Your task to perform on an android device: toggle pop-ups in chrome Image 0: 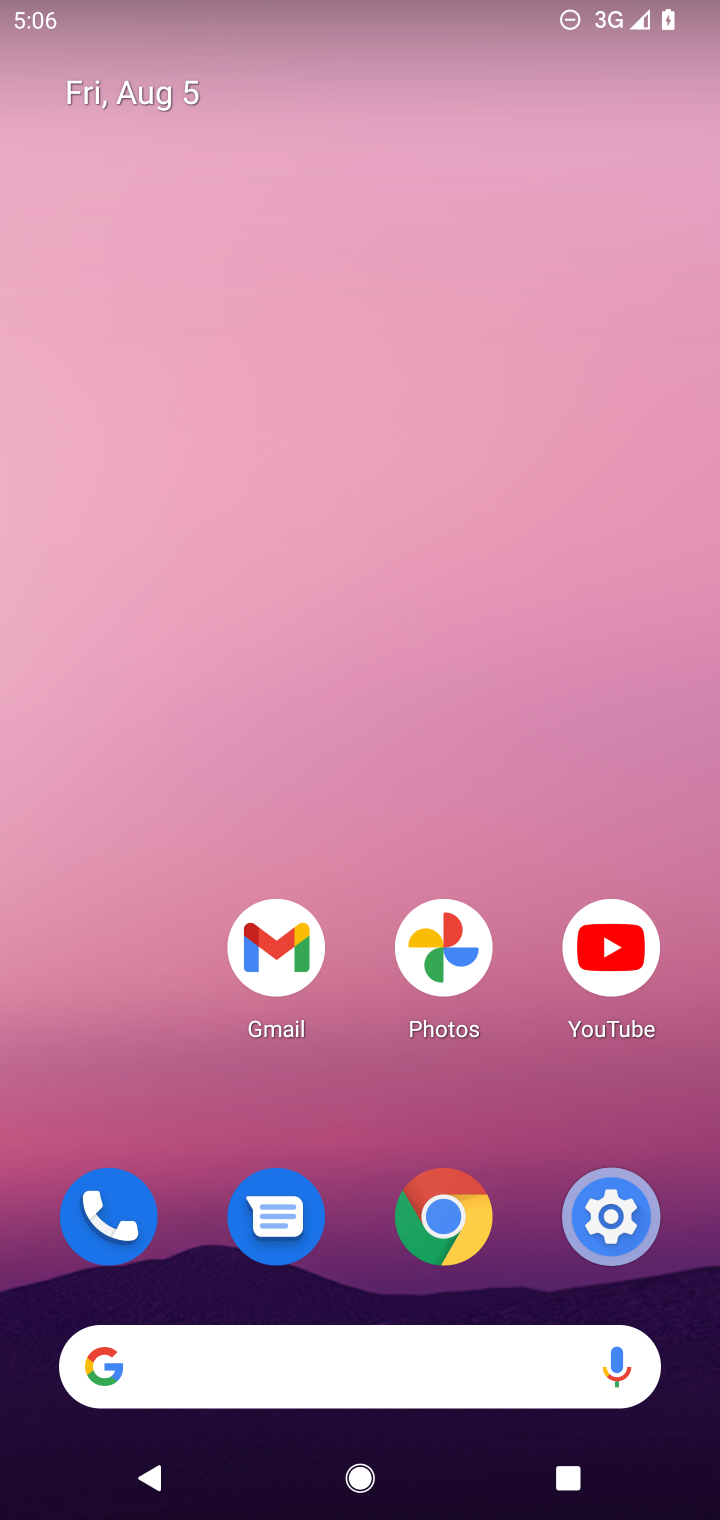
Step 0: click (446, 1208)
Your task to perform on an android device: toggle pop-ups in chrome Image 1: 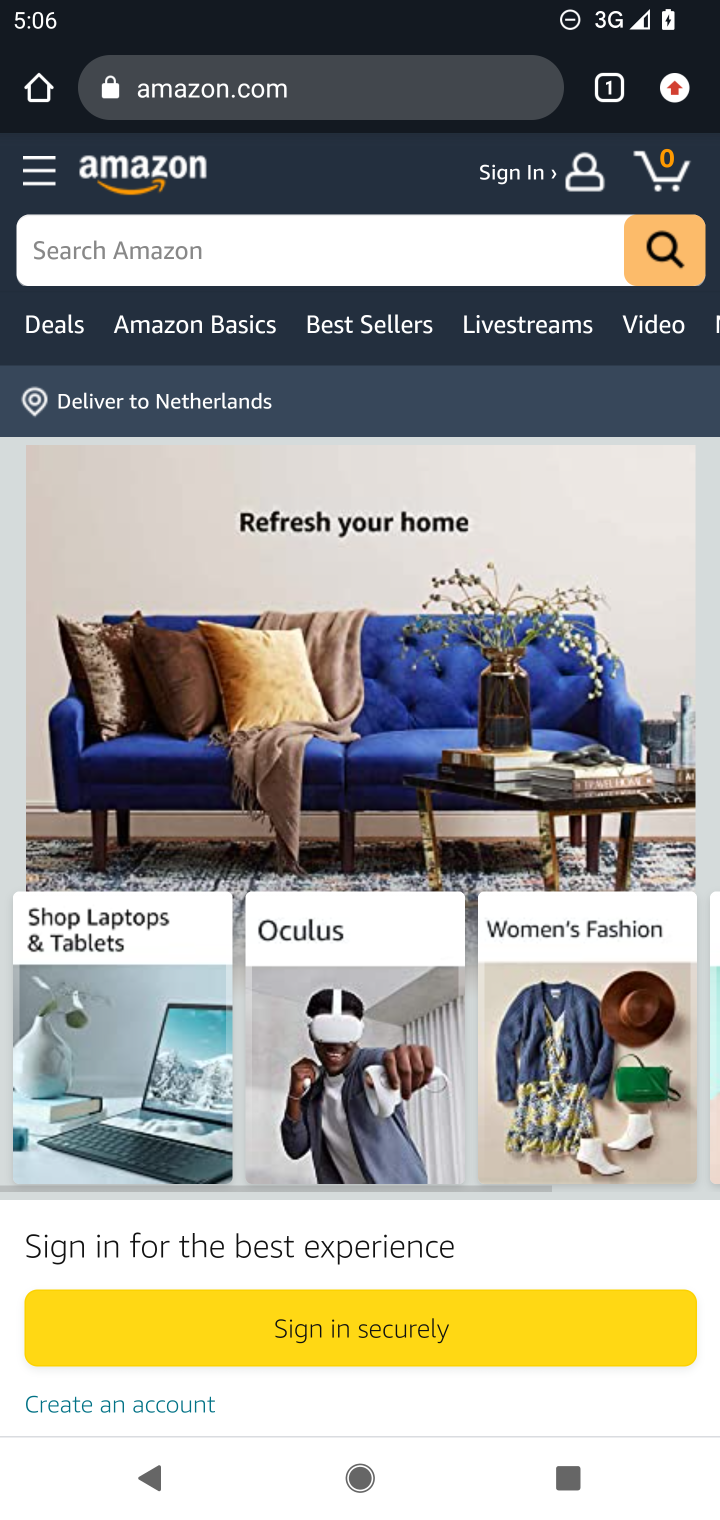
Step 1: click (683, 84)
Your task to perform on an android device: toggle pop-ups in chrome Image 2: 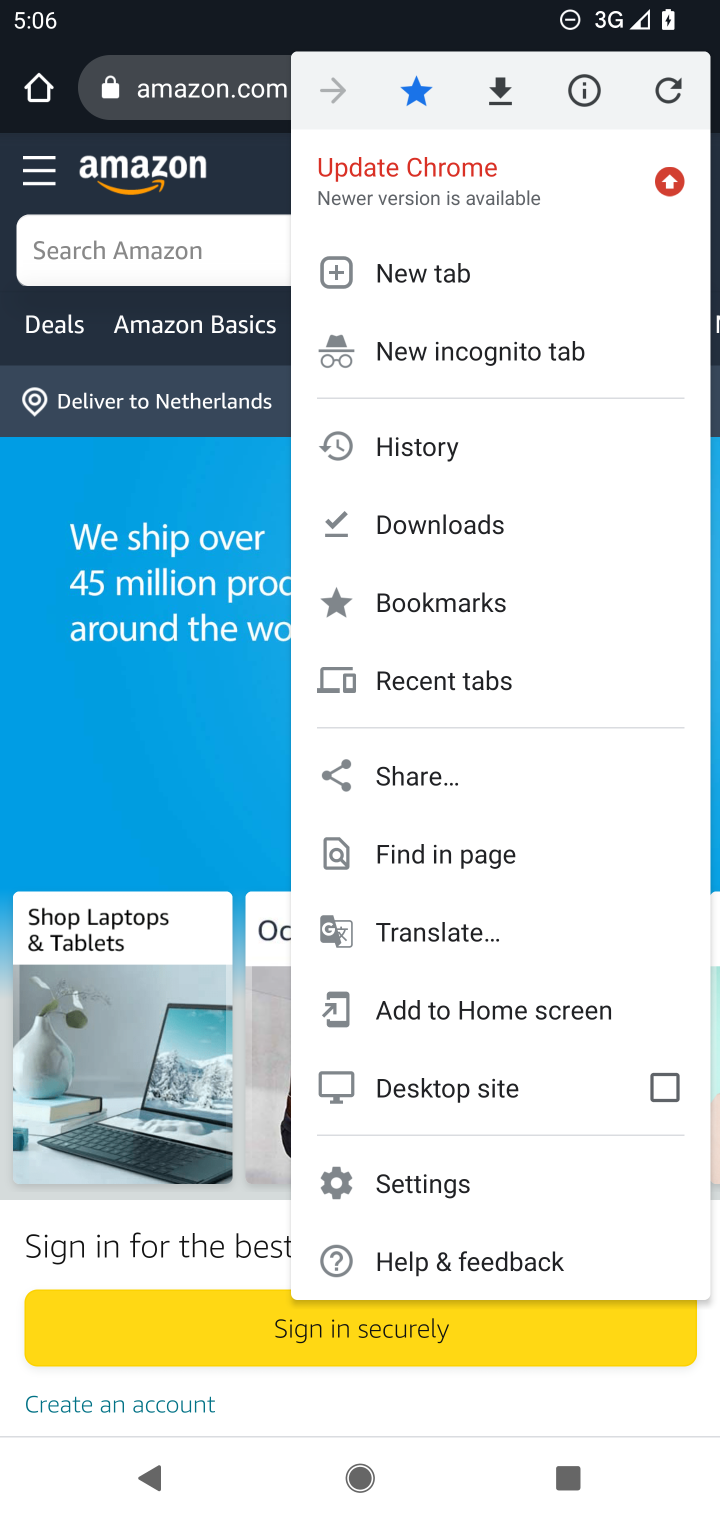
Step 2: click (387, 1176)
Your task to perform on an android device: toggle pop-ups in chrome Image 3: 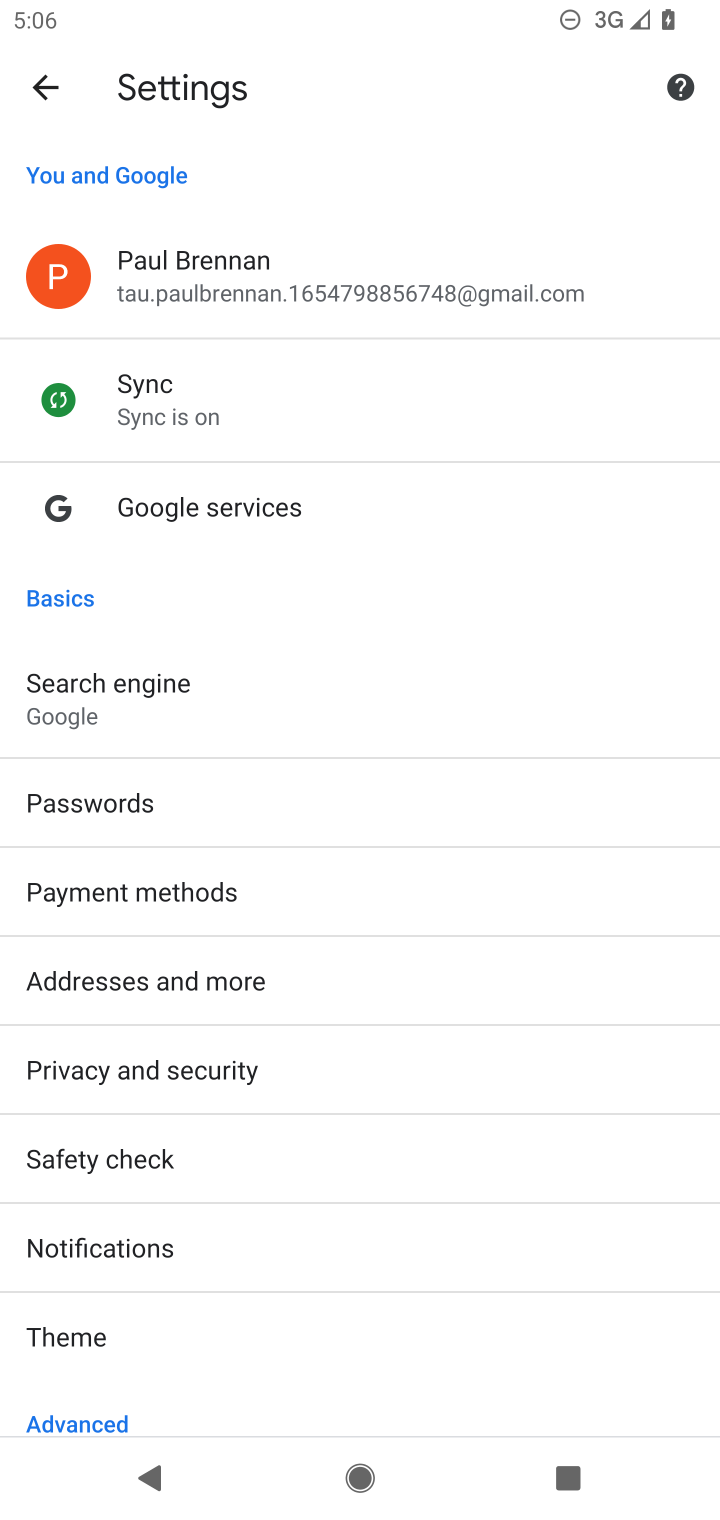
Step 3: drag from (324, 1184) to (184, 339)
Your task to perform on an android device: toggle pop-ups in chrome Image 4: 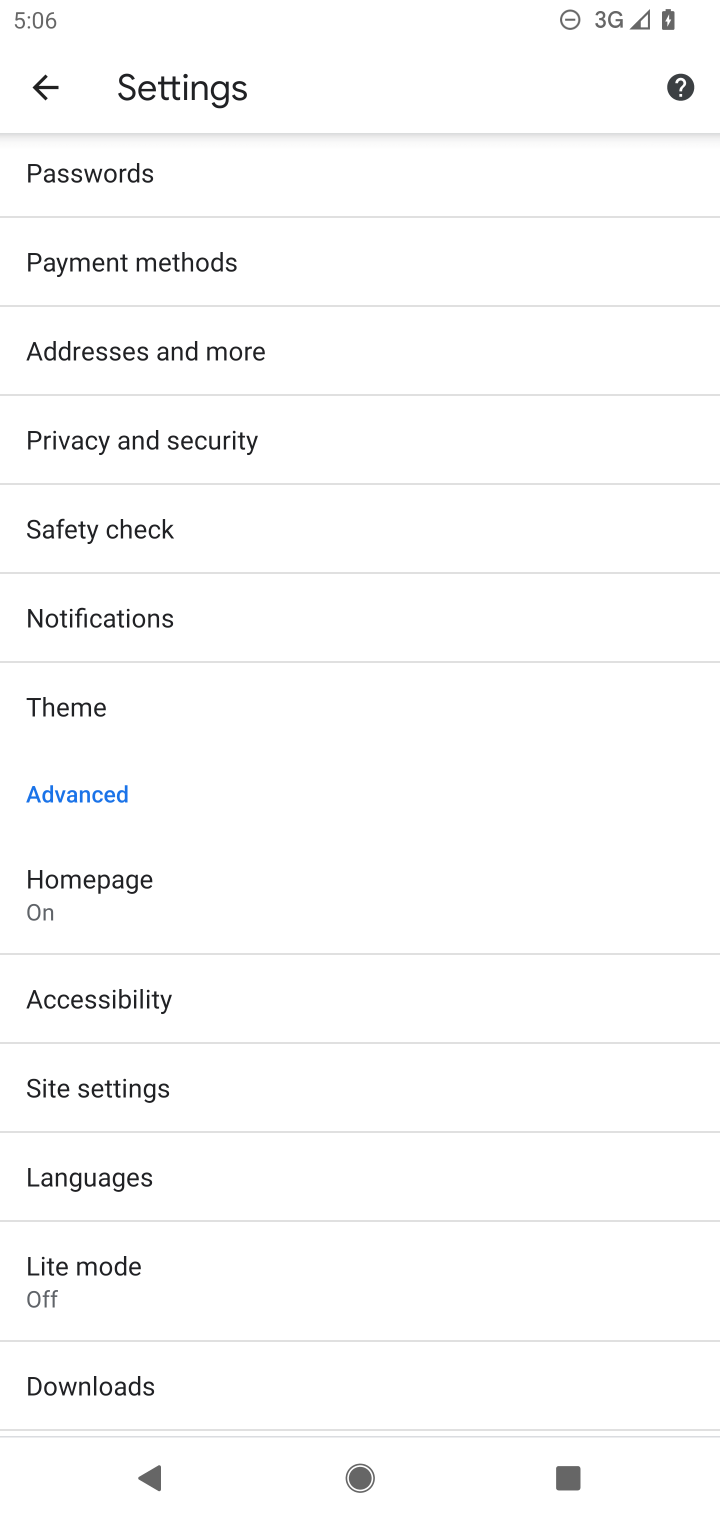
Step 4: click (229, 1079)
Your task to perform on an android device: toggle pop-ups in chrome Image 5: 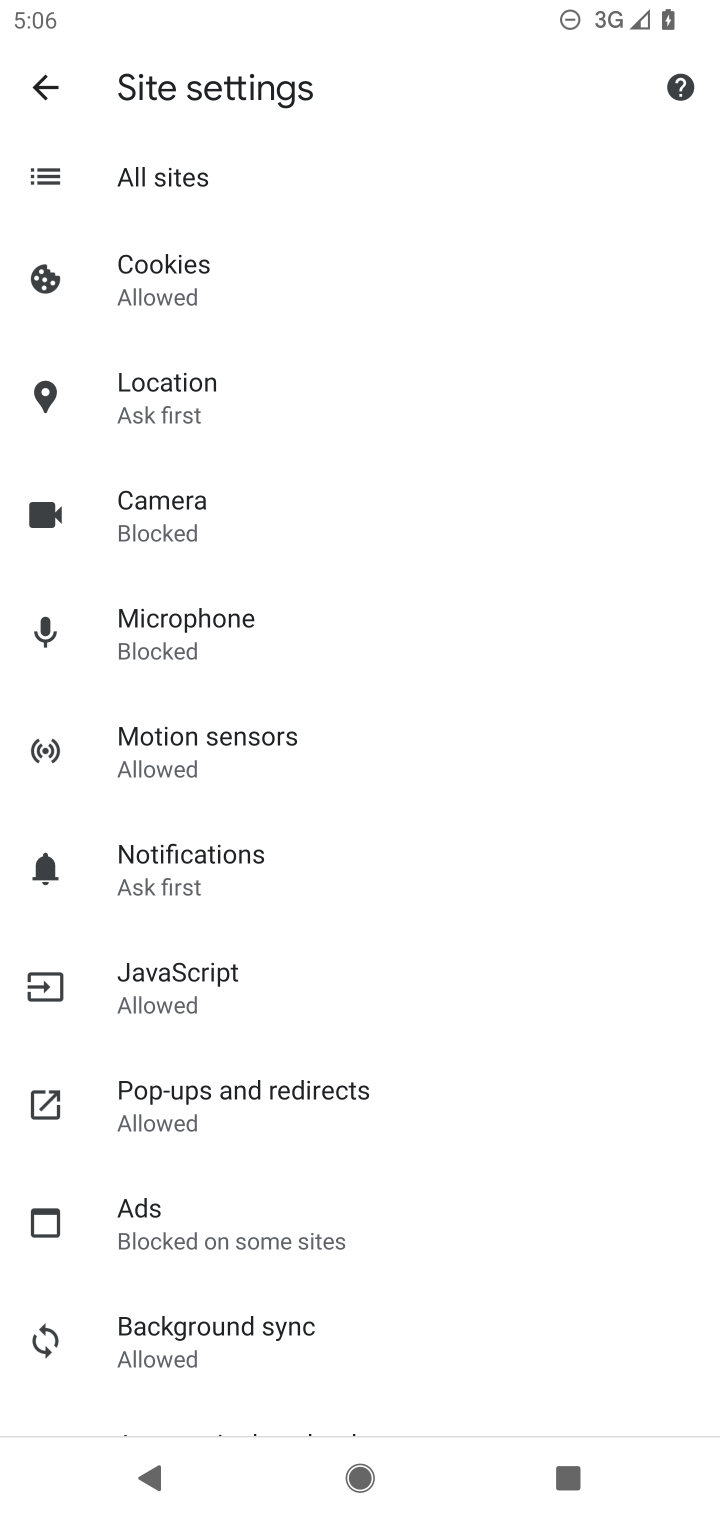
Step 5: click (265, 1098)
Your task to perform on an android device: toggle pop-ups in chrome Image 6: 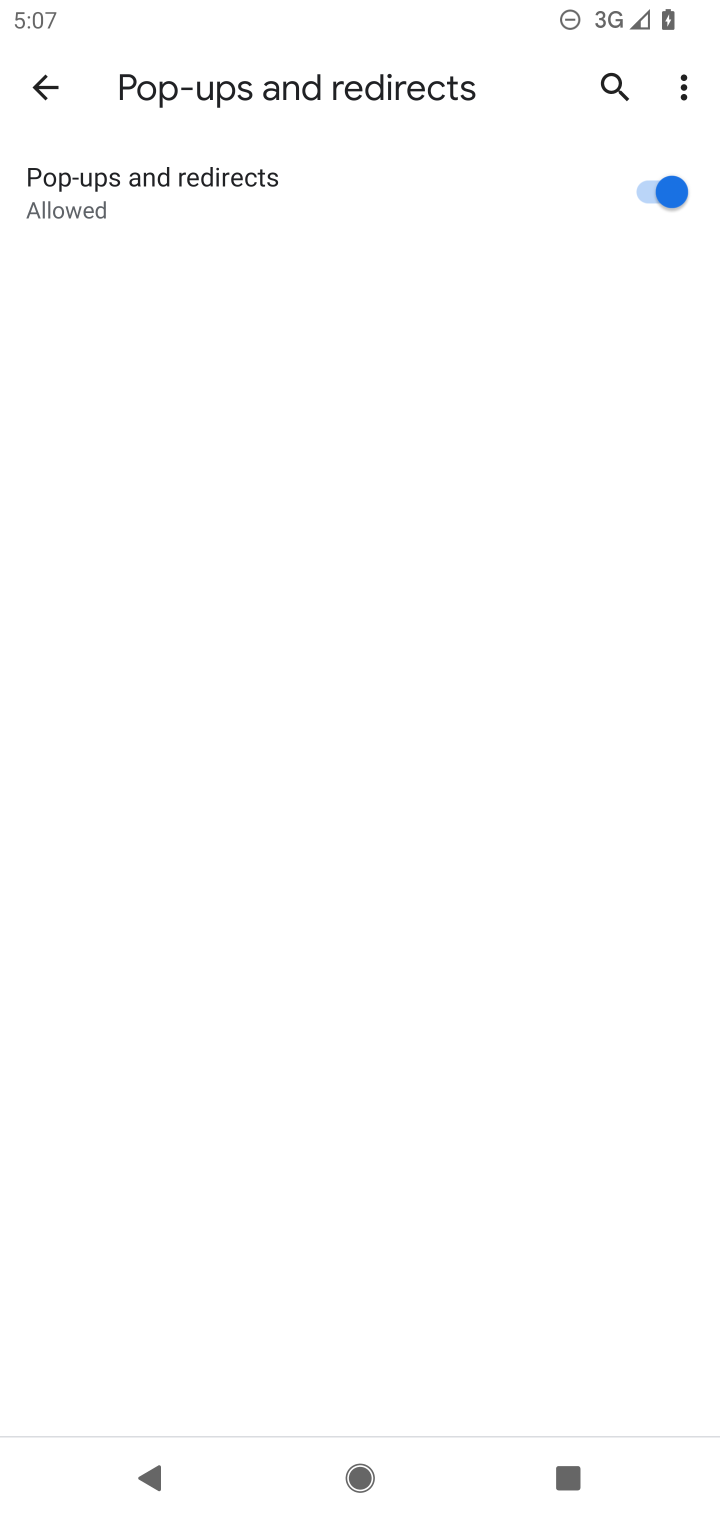
Step 6: click (684, 201)
Your task to perform on an android device: toggle pop-ups in chrome Image 7: 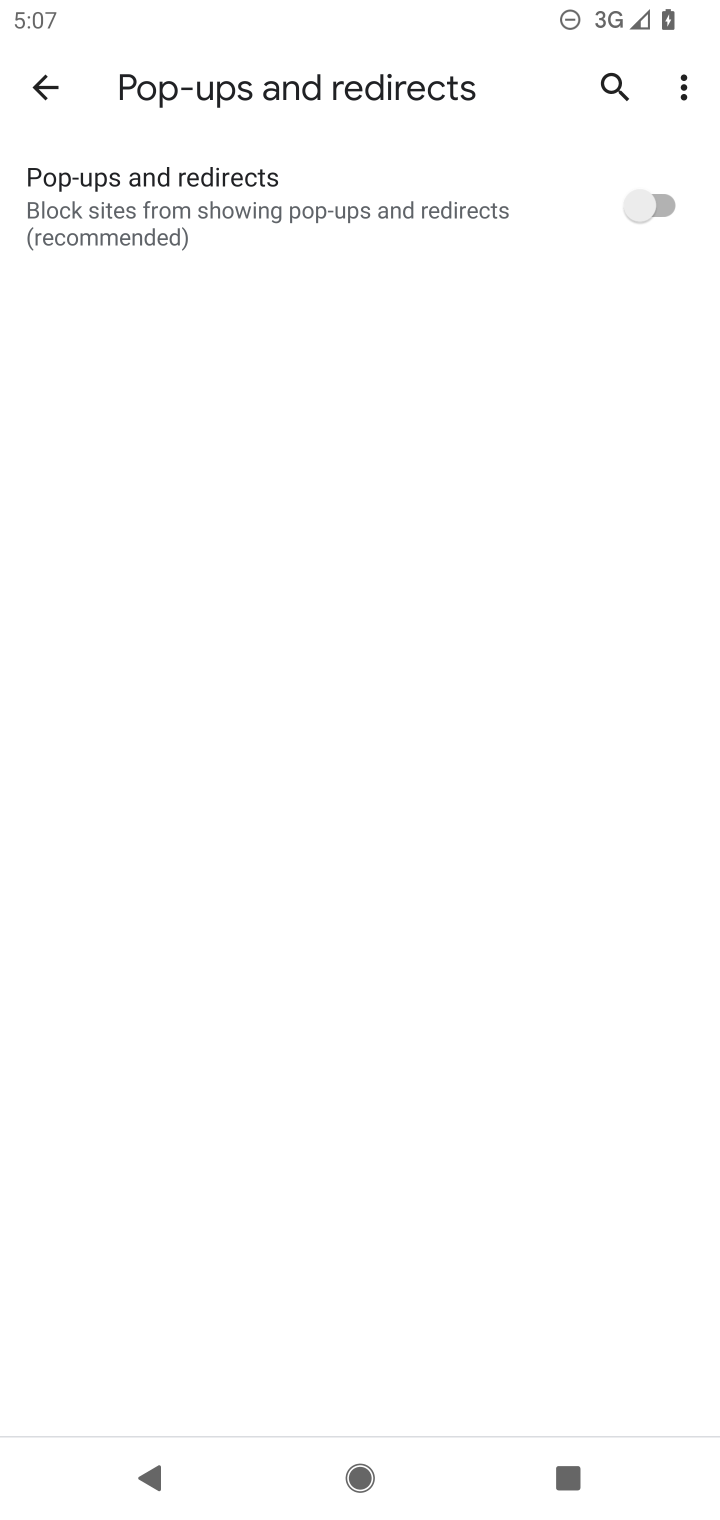
Step 7: task complete